Your task to perform on an android device: Search for Mexican restaurants on Maps Image 0: 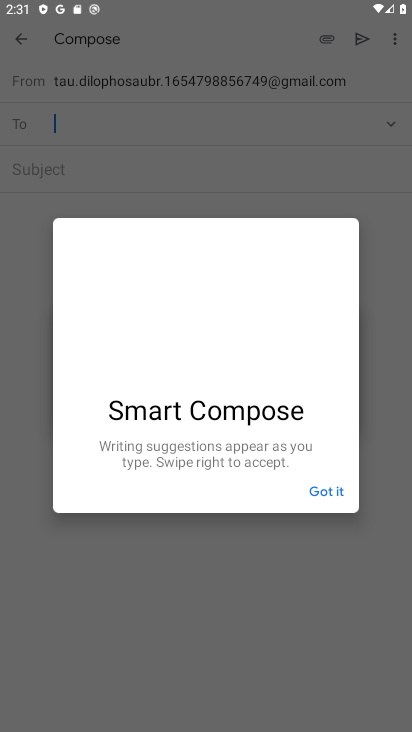
Step 0: press home button
Your task to perform on an android device: Search for Mexican restaurants on Maps Image 1: 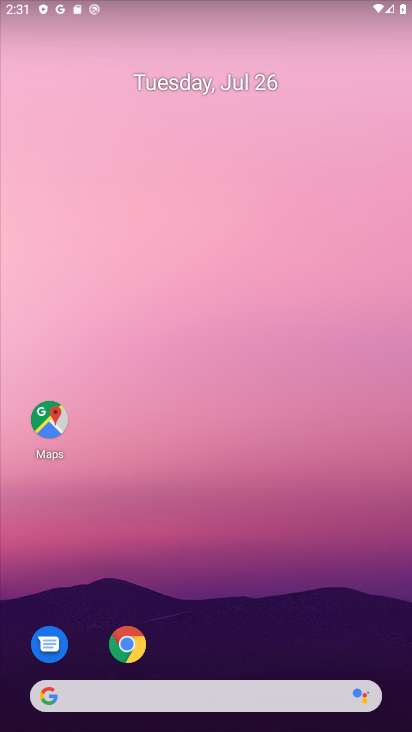
Step 1: drag from (204, 662) to (152, 129)
Your task to perform on an android device: Search for Mexican restaurants on Maps Image 2: 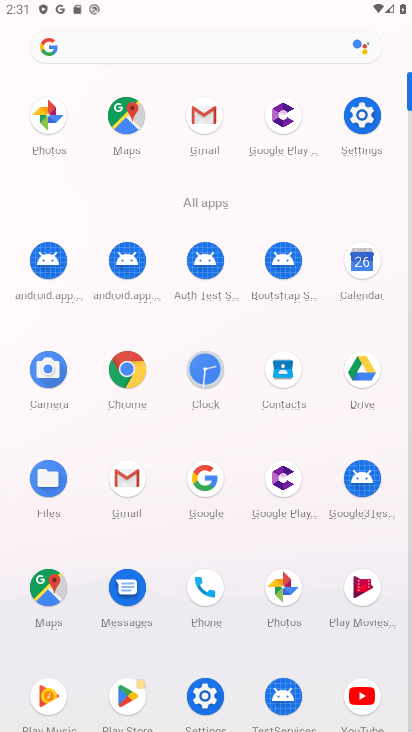
Step 2: click (58, 590)
Your task to perform on an android device: Search for Mexican restaurants on Maps Image 3: 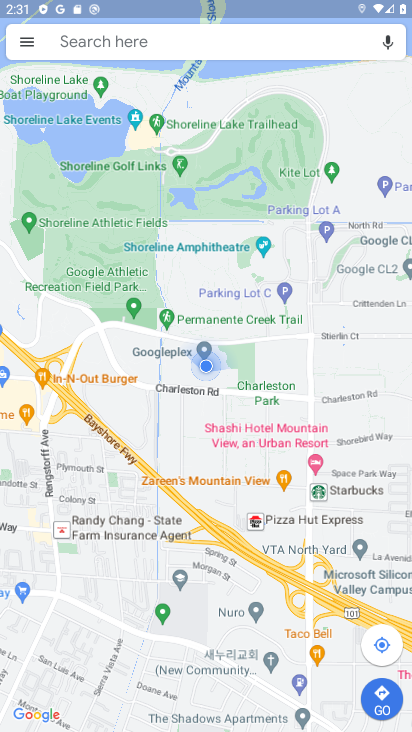
Step 3: click (226, 47)
Your task to perform on an android device: Search for Mexican restaurants on Maps Image 4: 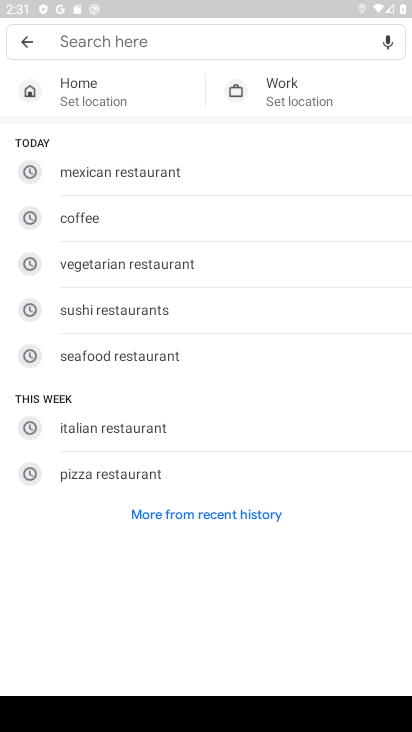
Step 4: click (135, 173)
Your task to perform on an android device: Search for Mexican restaurants on Maps Image 5: 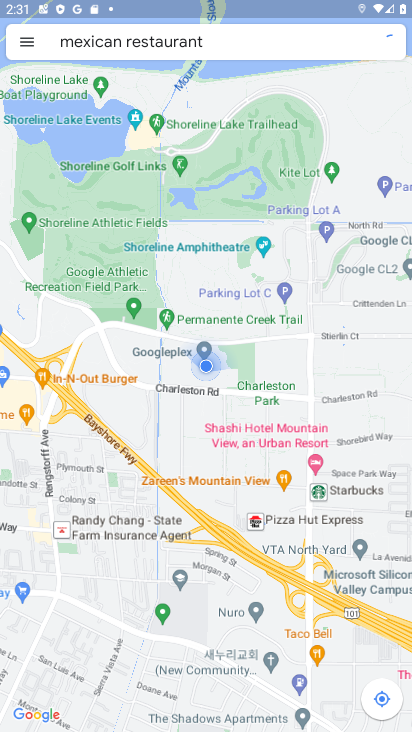
Step 5: task complete